Your task to perform on an android device: Go to wifi settings Image 0: 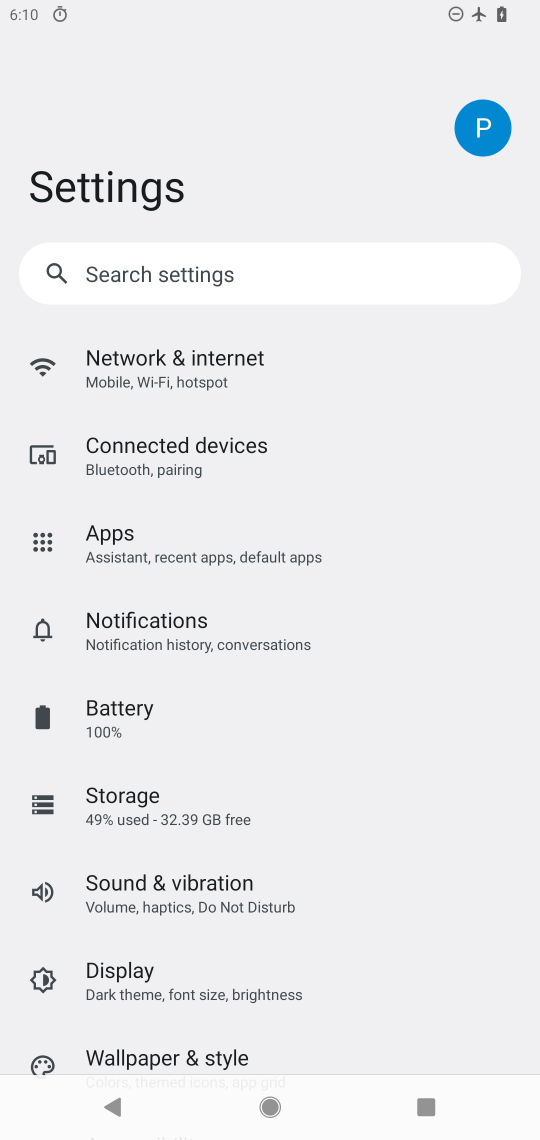
Step 0: press home button
Your task to perform on an android device: Go to wifi settings Image 1: 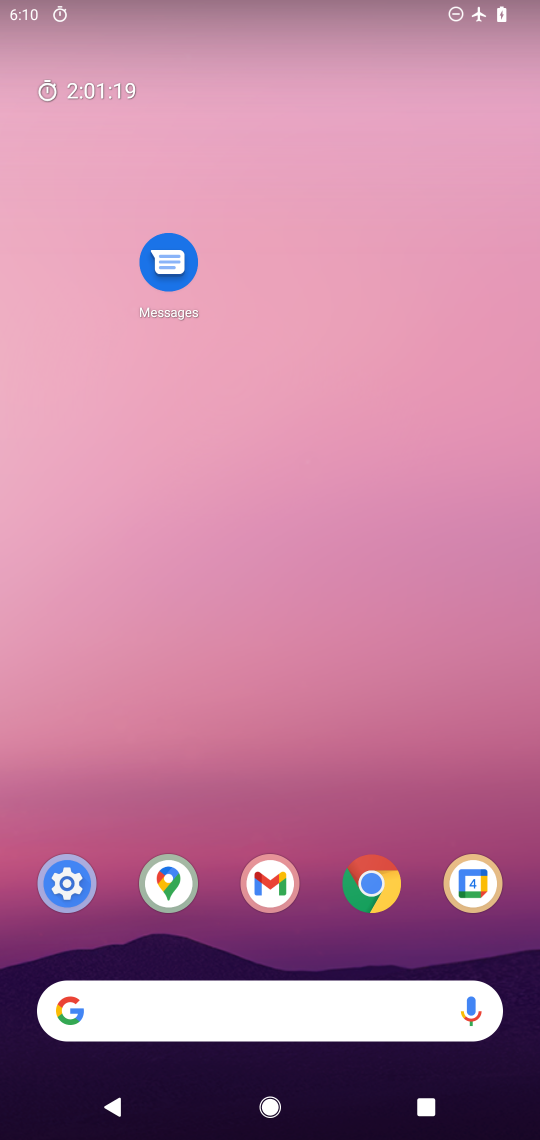
Step 1: drag from (299, 956) to (295, 95)
Your task to perform on an android device: Go to wifi settings Image 2: 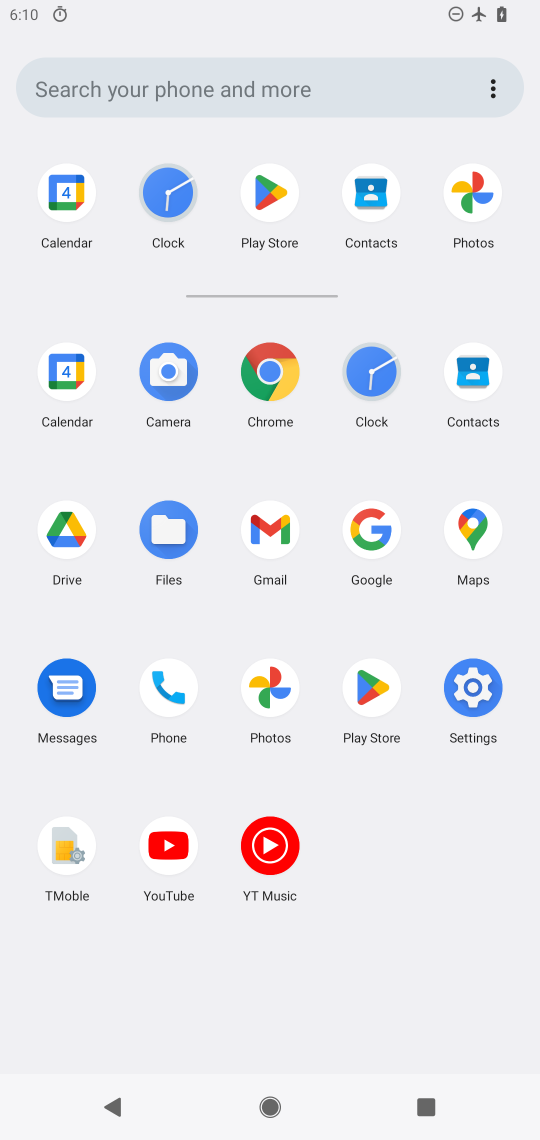
Step 2: click (483, 687)
Your task to perform on an android device: Go to wifi settings Image 3: 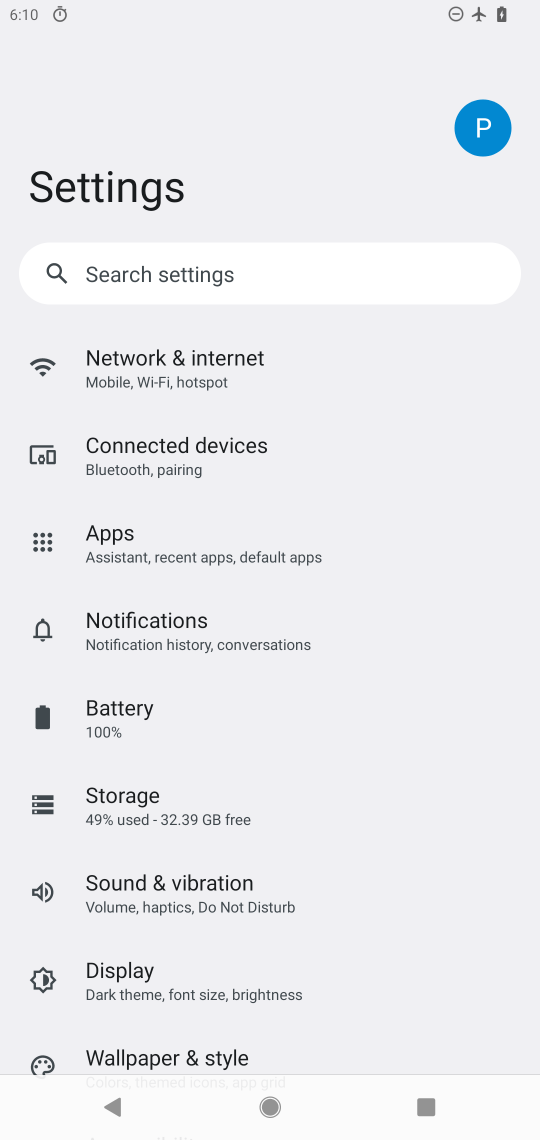
Step 3: click (152, 369)
Your task to perform on an android device: Go to wifi settings Image 4: 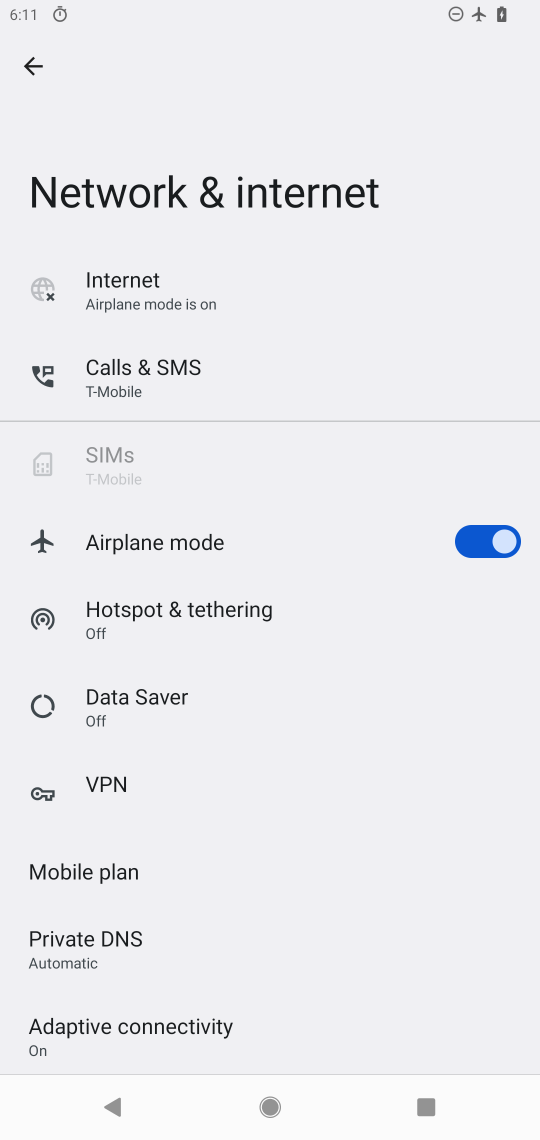
Step 4: click (140, 283)
Your task to perform on an android device: Go to wifi settings Image 5: 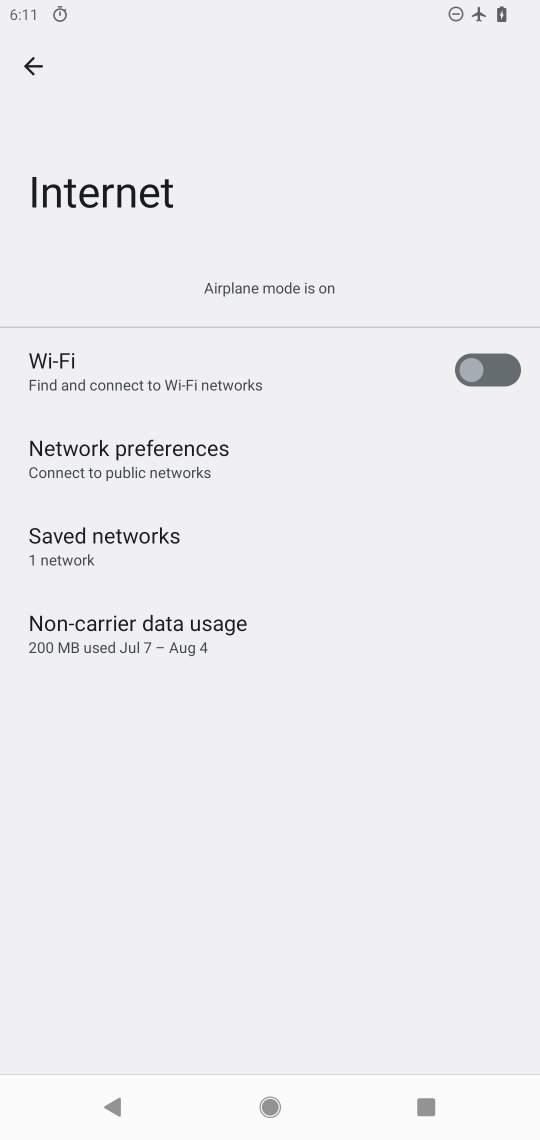
Step 5: task complete